Your task to perform on an android device: change the clock style Image 0: 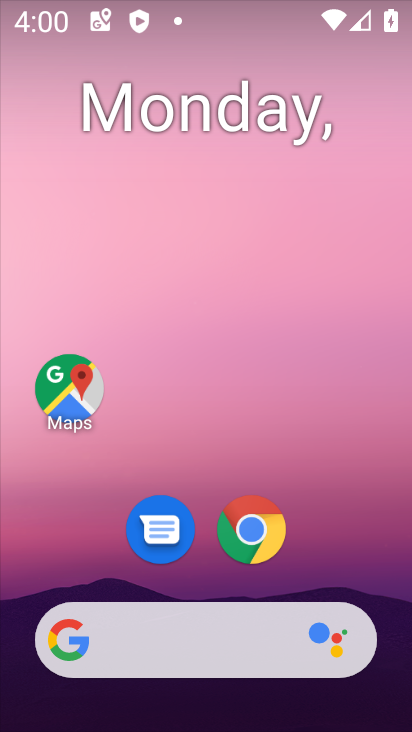
Step 0: drag from (229, 713) to (241, 205)
Your task to perform on an android device: change the clock style Image 1: 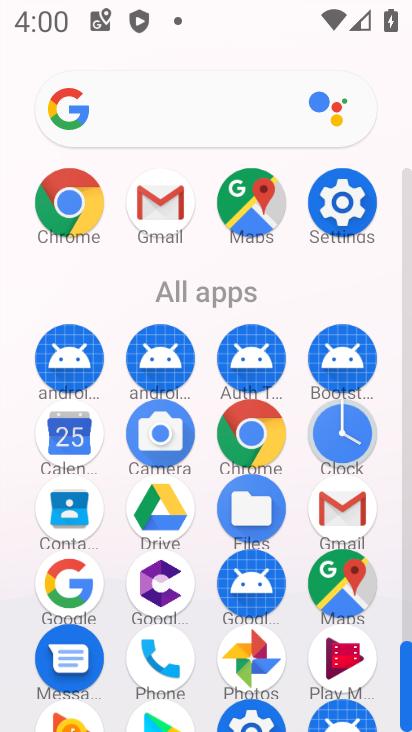
Step 1: click (347, 427)
Your task to perform on an android device: change the clock style Image 2: 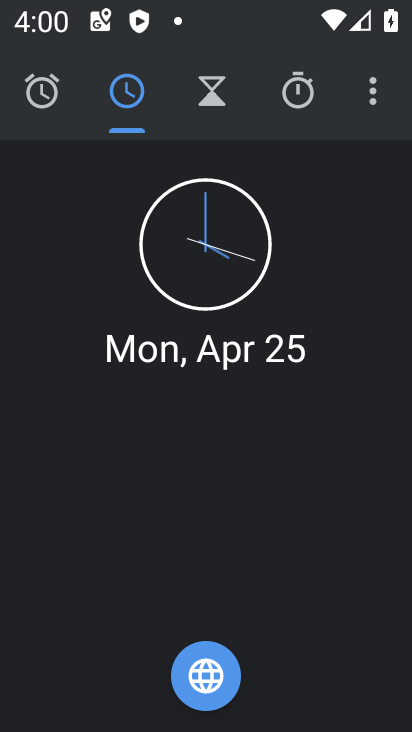
Step 2: click (373, 97)
Your task to perform on an android device: change the clock style Image 3: 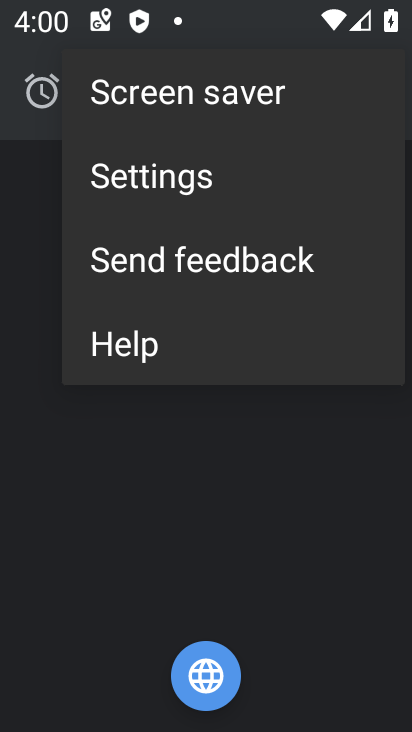
Step 3: click (183, 182)
Your task to perform on an android device: change the clock style Image 4: 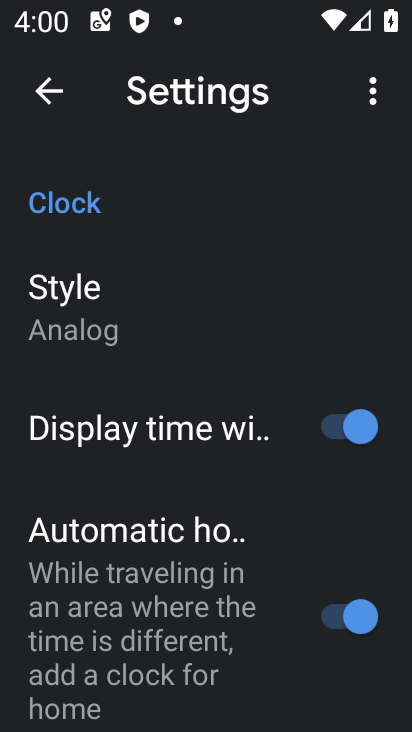
Step 4: click (91, 309)
Your task to perform on an android device: change the clock style Image 5: 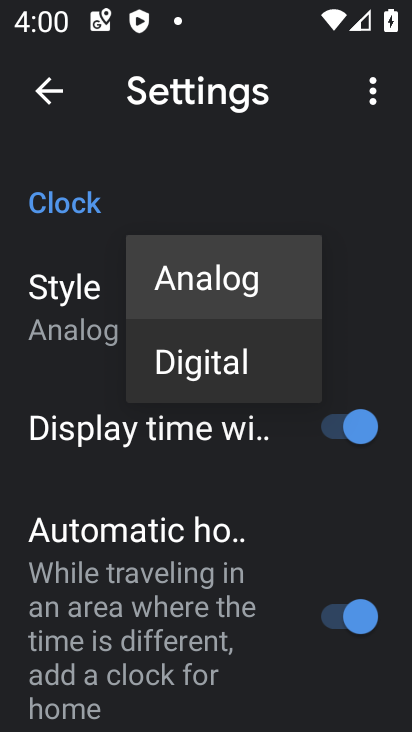
Step 5: click (221, 364)
Your task to perform on an android device: change the clock style Image 6: 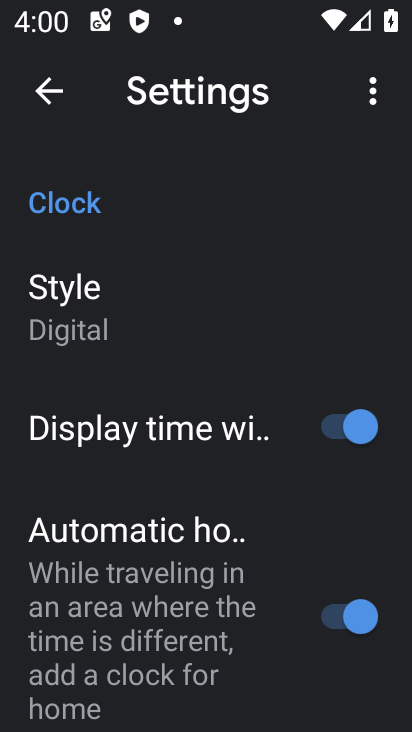
Step 6: task complete